Your task to perform on an android device: uninstall "LinkedIn" Image 0: 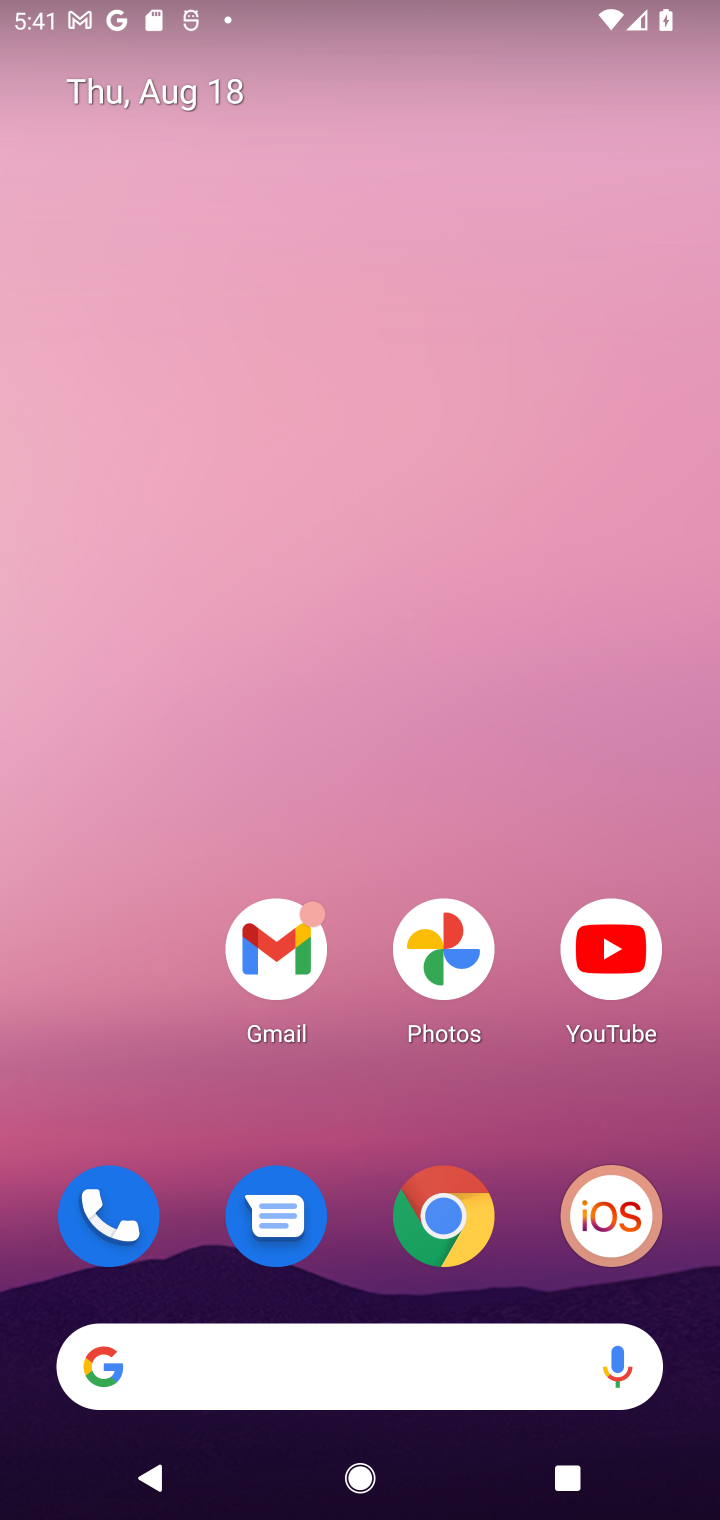
Step 0: drag from (516, 736) to (465, 245)
Your task to perform on an android device: uninstall "LinkedIn" Image 1: 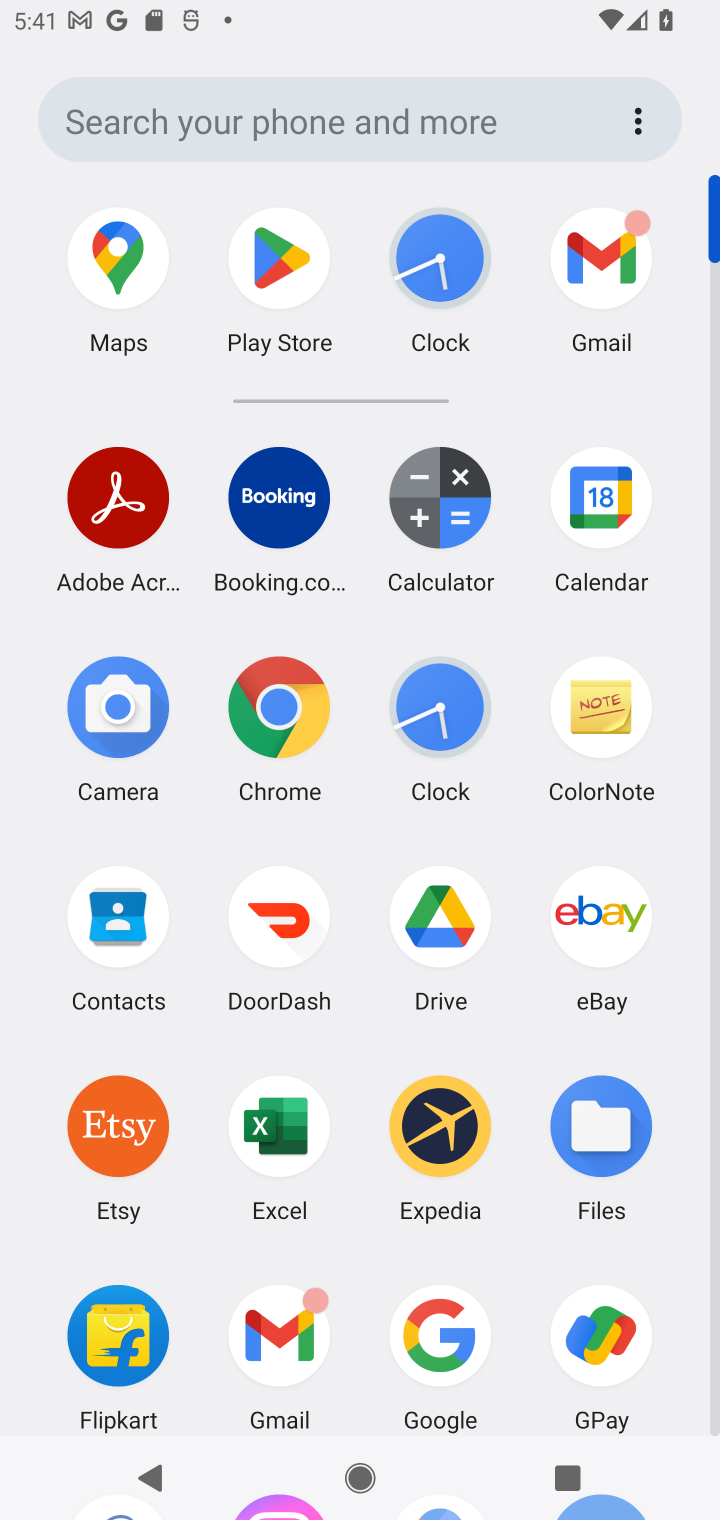
Step 1: drag from (529, 1279) to (516, 609)
Your task to perform on an android device: uninstall "LinkedIn" Image 2: 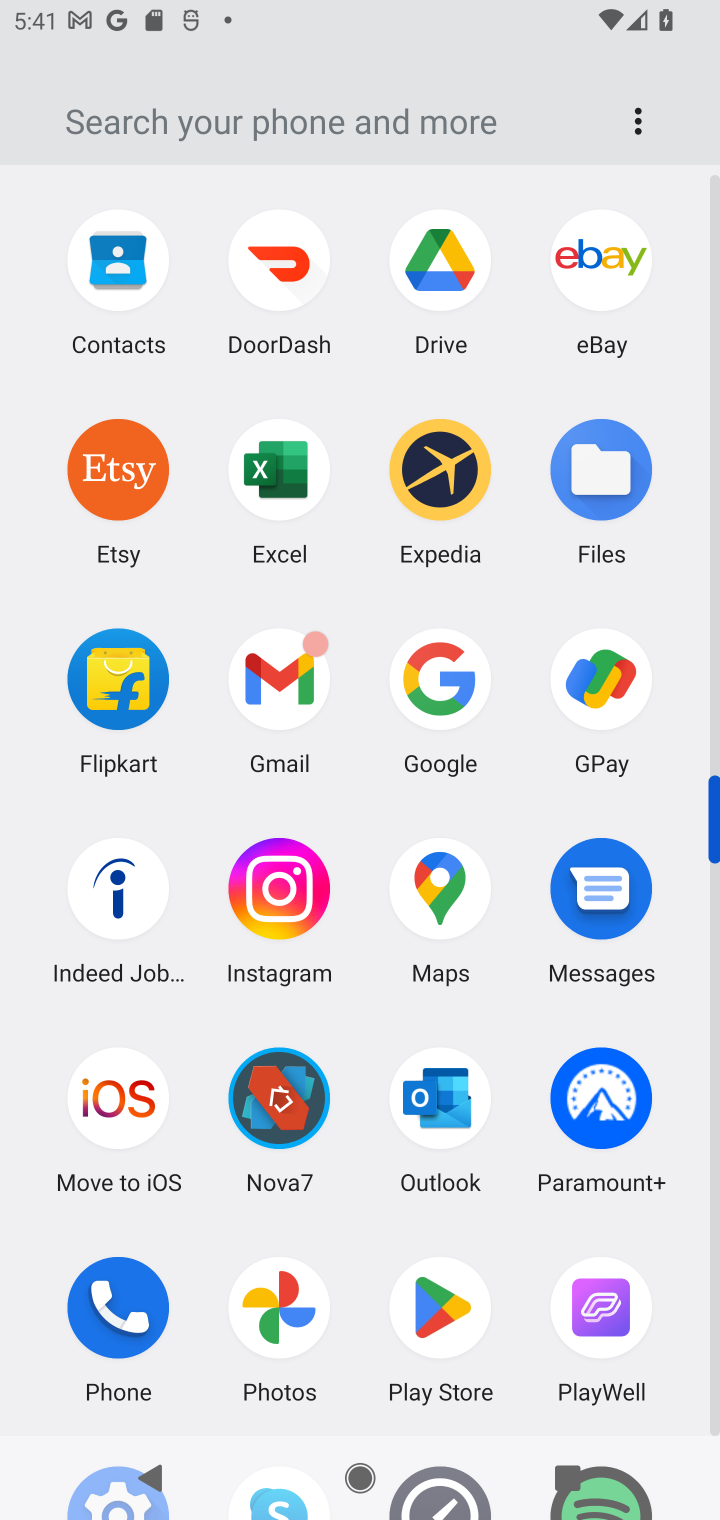
Step 2: click (445, 1307)
Your task to perform on an android device: uninstall "LinkedIn" Image 3: 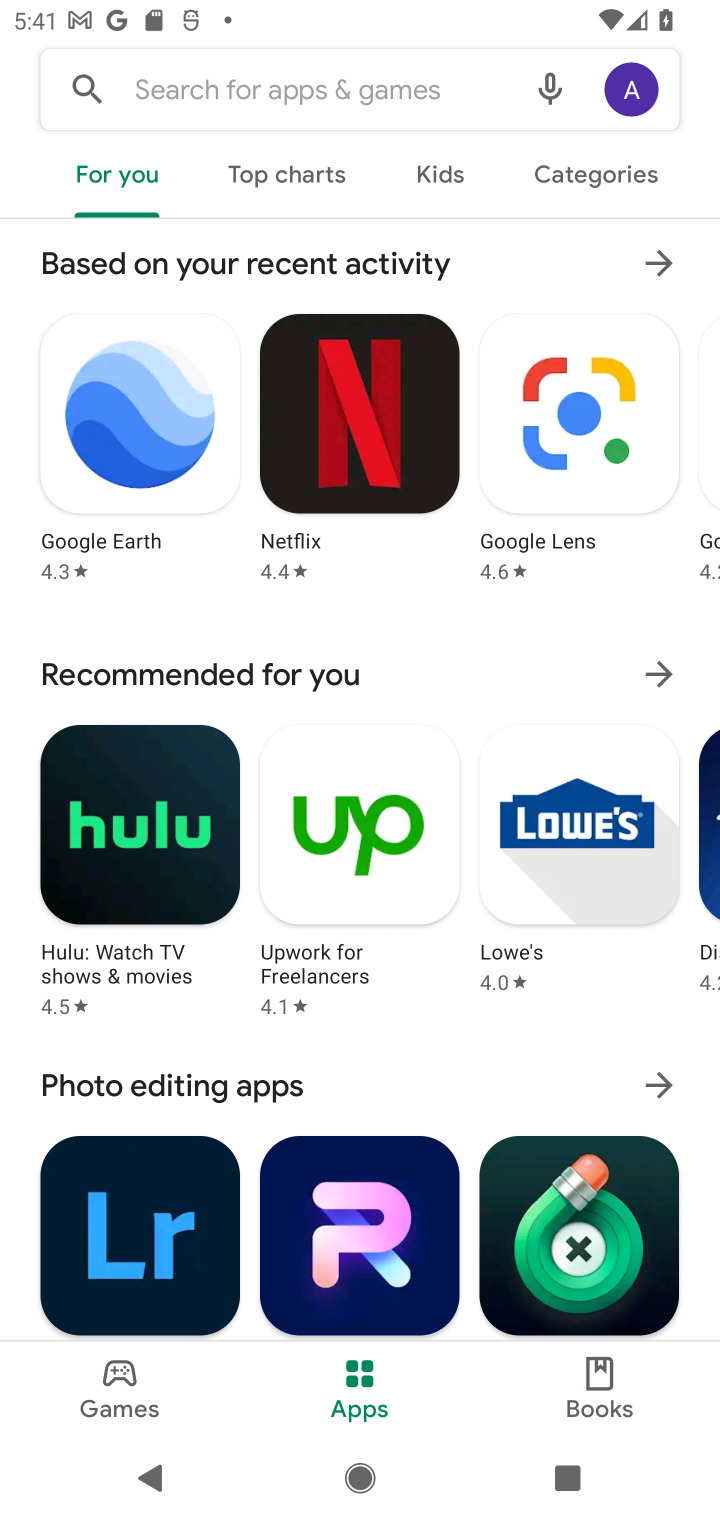
Step 3: click (214, 79)
Your task to perform on an android device: uninstall "LinkedIn" Image 4: 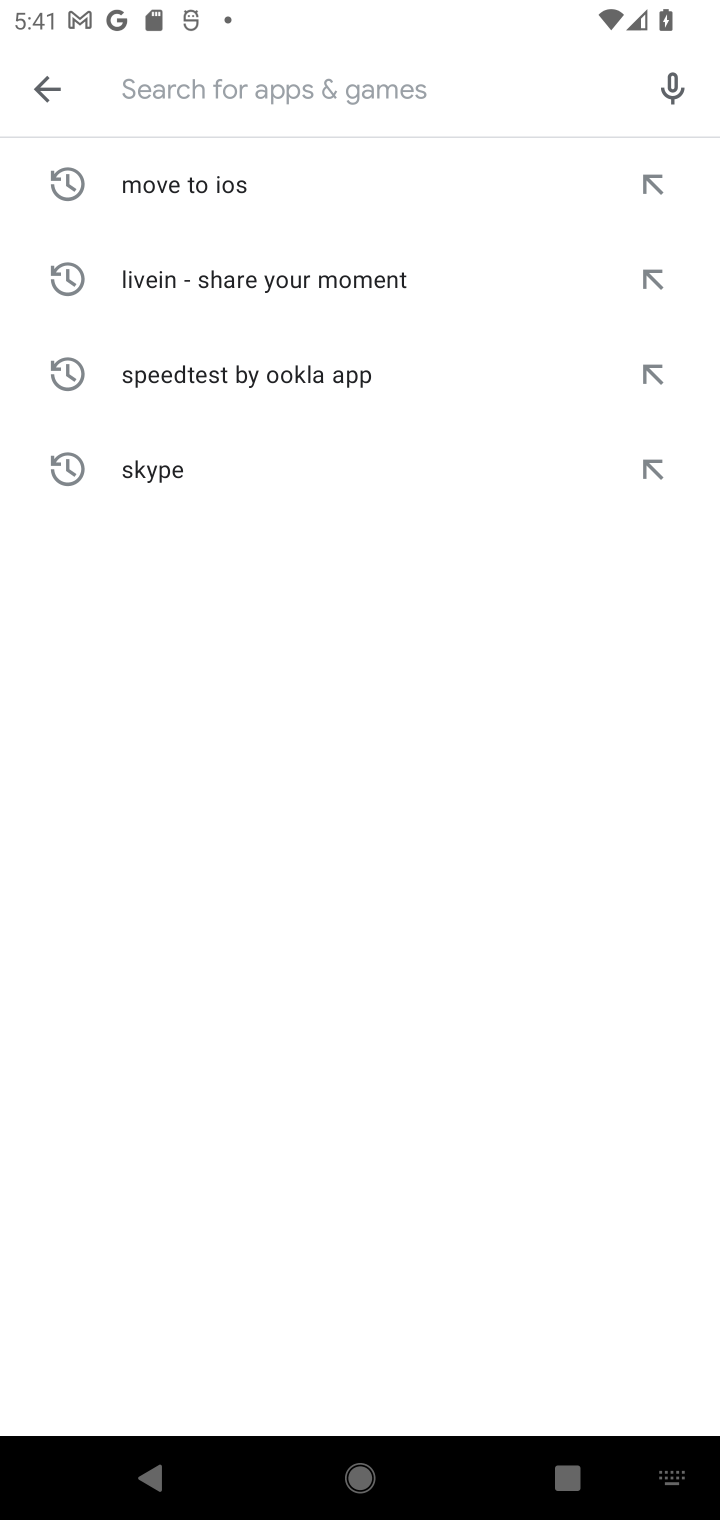
Step 4: type "Linkedin"
Your task to perform on an android device: uninstall "LinkedIn" Image 5: 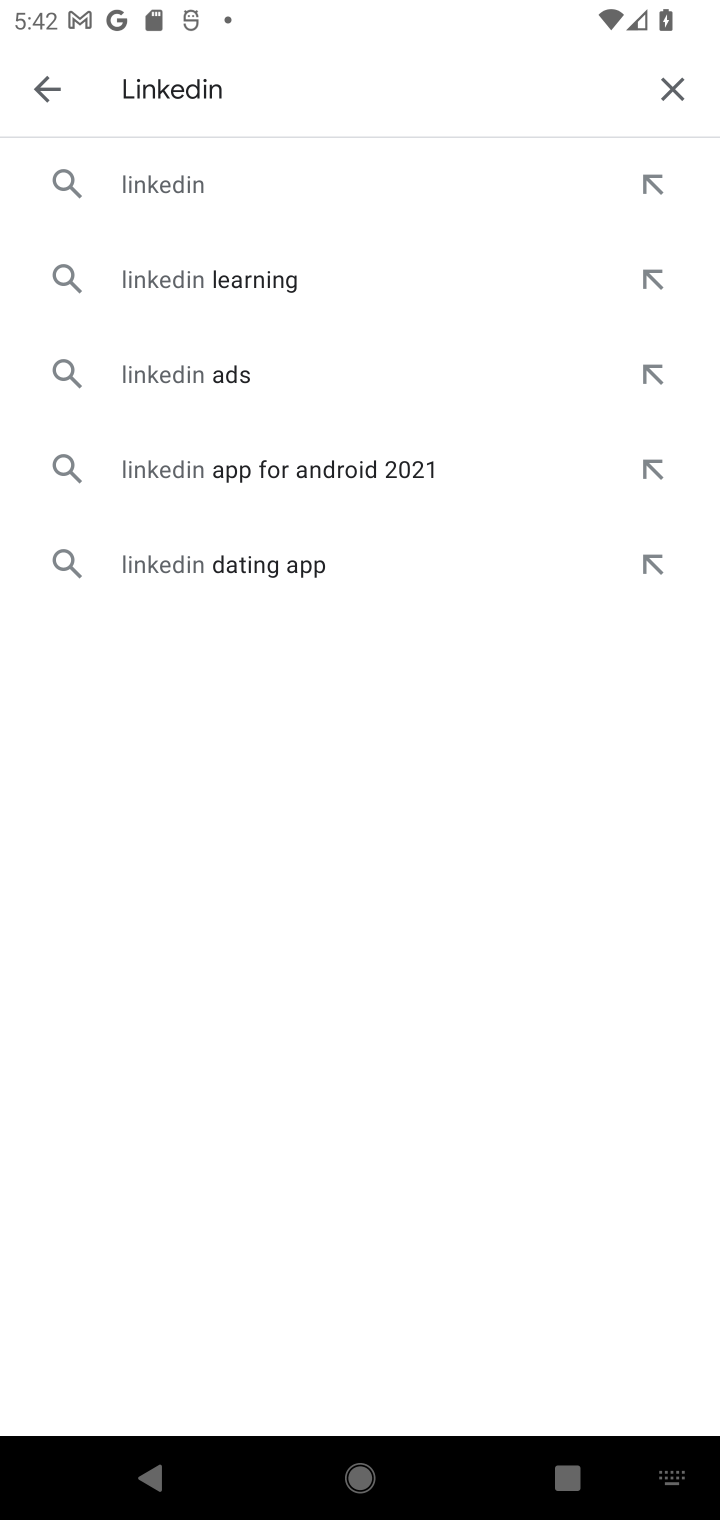
Step 5: click (183, 176)
Your task to perform on an android device: uninstall "LinkedIn" Image 6: 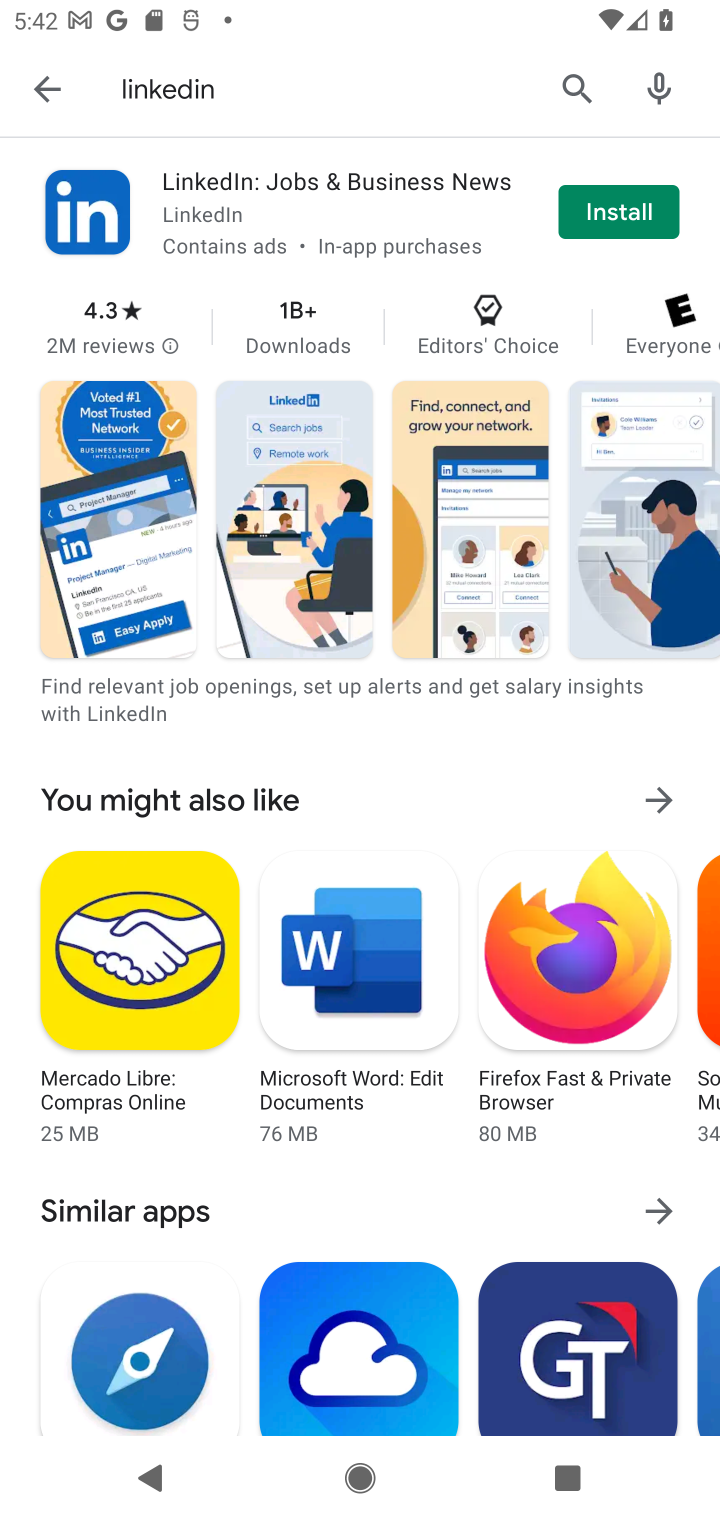
Step 6: task complete